Your task to perform on an android device: open chrome privacy settings Image 0: 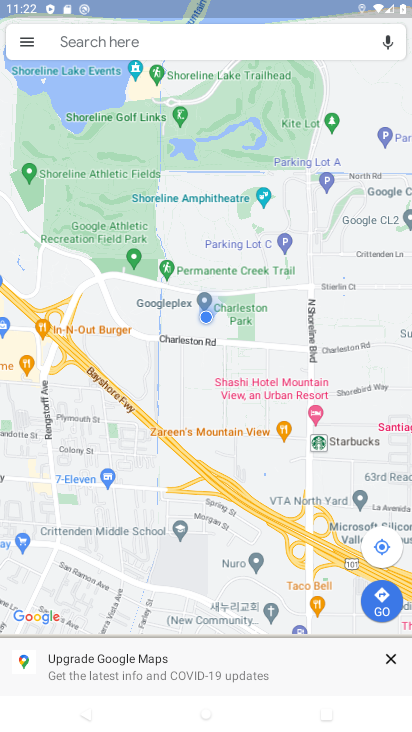
Step 0: task complete